Your task to perform on an android device: Open settings Image 0: 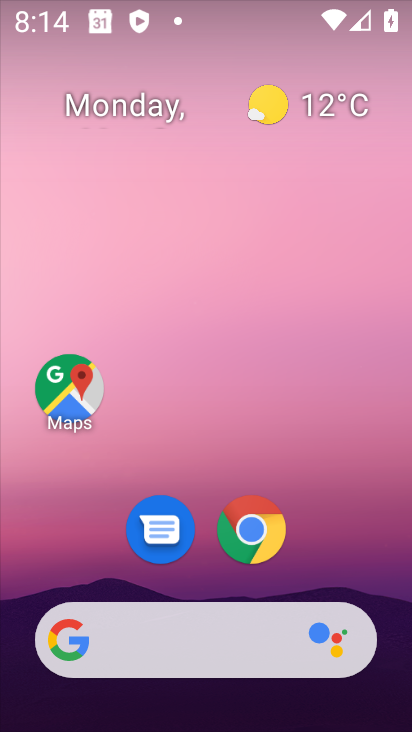
Step 0: drag from (193, 622) to (161, 92)
Your task to perform on an android device: Open settings Image 1: 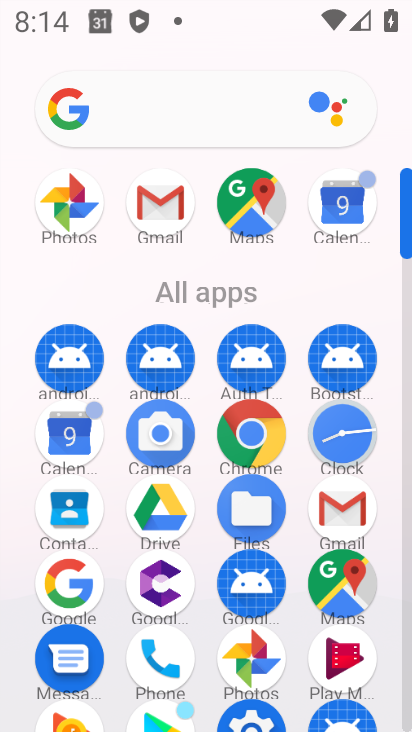
Step 1: click (251, 717)
Your task to perform on an android device: Open settings Image 2: 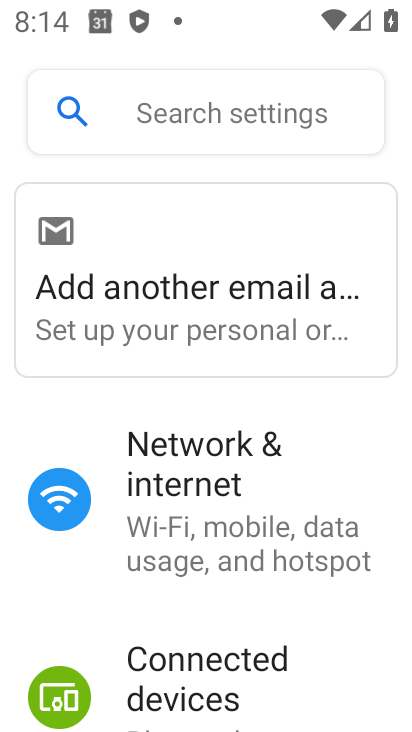
Step 2: task complete